Your task to perform on an android device: move an email to a new category in the gmail app Image 0: 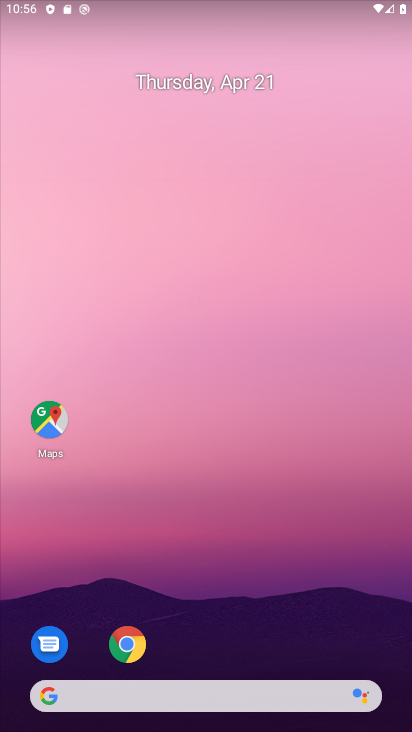
Step 0: drag from (268, 632) to (248, 184)
Your task to perform on an android device: move an email to a new category in the gmail app Image 1: 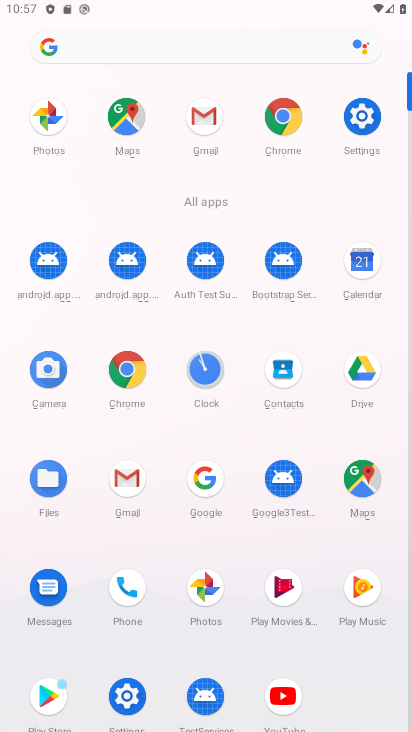
Step 1: click (207, 131)
Your task to perform on an android device: move an email to a new category in the gmail app Image 2: 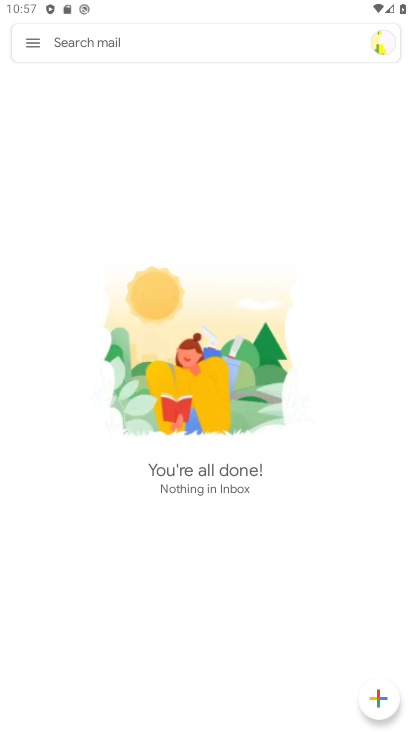
Step 2: task complete